Your task to perform on an android device: change timer sound Image 0: 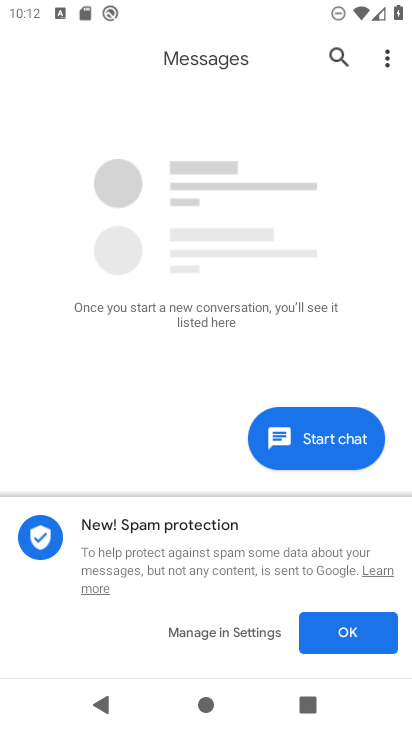
Step 0: press home button
Your task to perform on an android device: change timer sound Image 1: 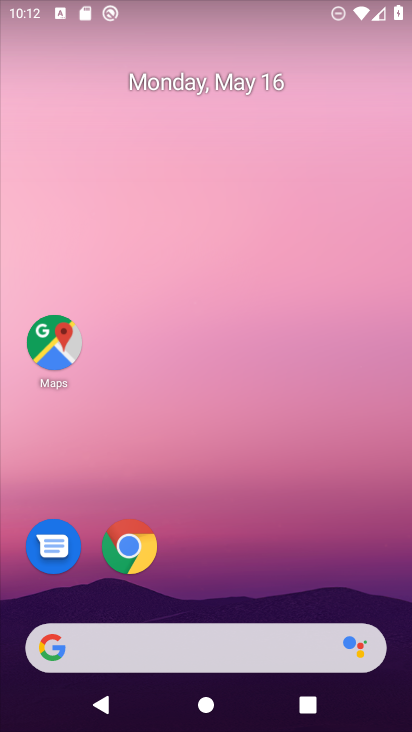
Step 1: drag from (138, 604) to (209, 99)
Your task to perform on an android device: change timer sound Image 2: 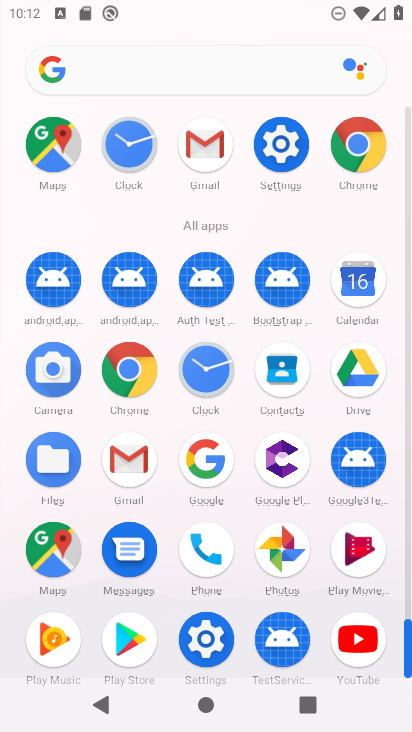
Step 2: click (290, 136)
Your task to perform on an android device: change timer sound Image 3: 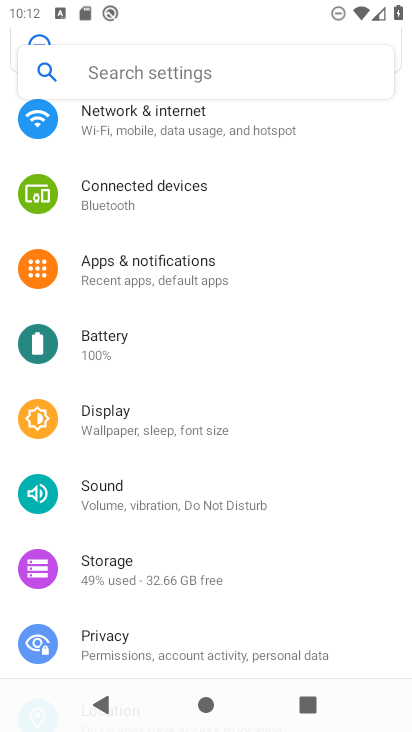
Step 3: click (212, 84)
Your task to perform on an android device: change timer sound Image 4: 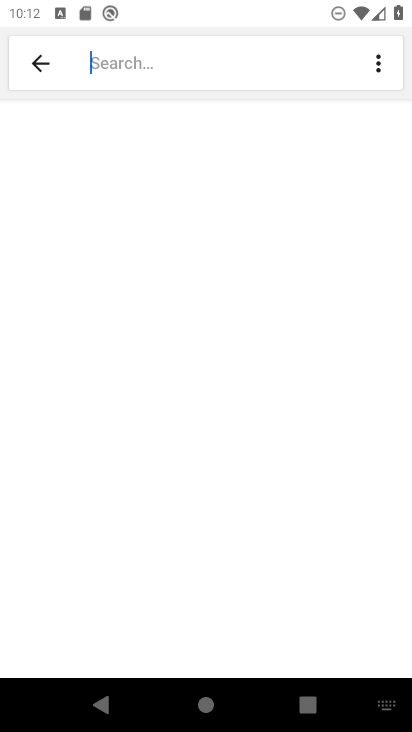
Step 4: type "timer"
Your task to perform on an android device: change timer sound Image 5: 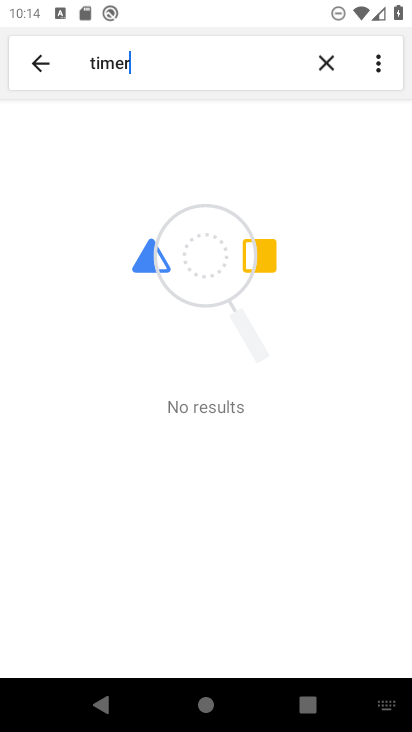
Step 5: task complete